Your task to perform on an android device: Open the calculator app Image 0: 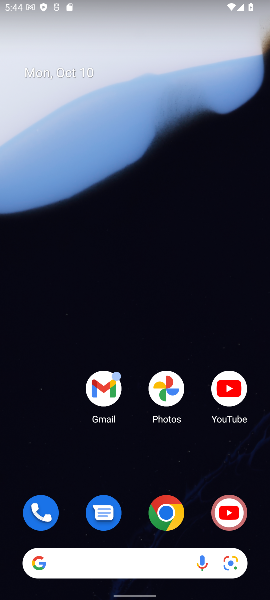
Step 0: drag from (131, 533) to (138, 24)
Your task to perform on an android device: Open the calculator app Image 1: 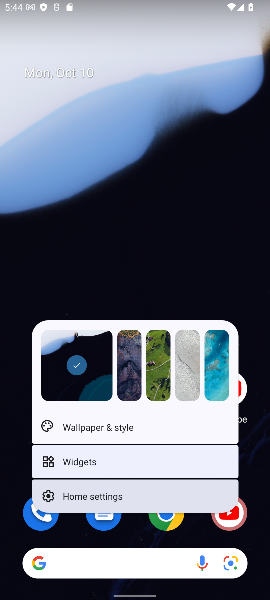
Step 1: click (165, 134)
Your task to perform on an android device: Open the calculator app Image 2: 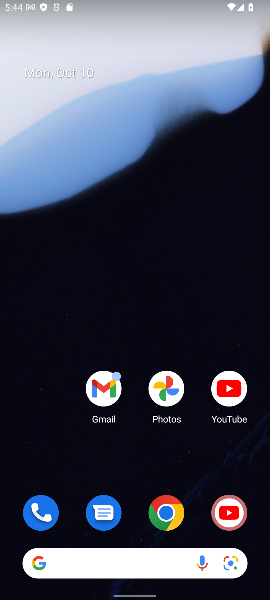
Step 2: drag from (205, 530) to (236, 110)
Your task to perform on an android device: Open the calculator app Image 3: 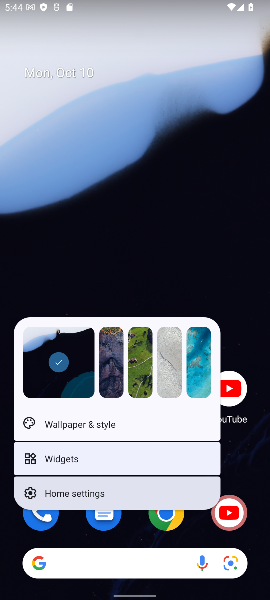
Step 3: click (207, 211)
Your task to perform on an android device: Open the calculator app Image 4: 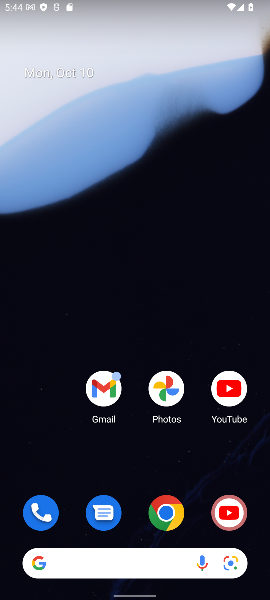
Step 4: task complete